Your task to perform on an android device: Open Wikipedia Image 0: 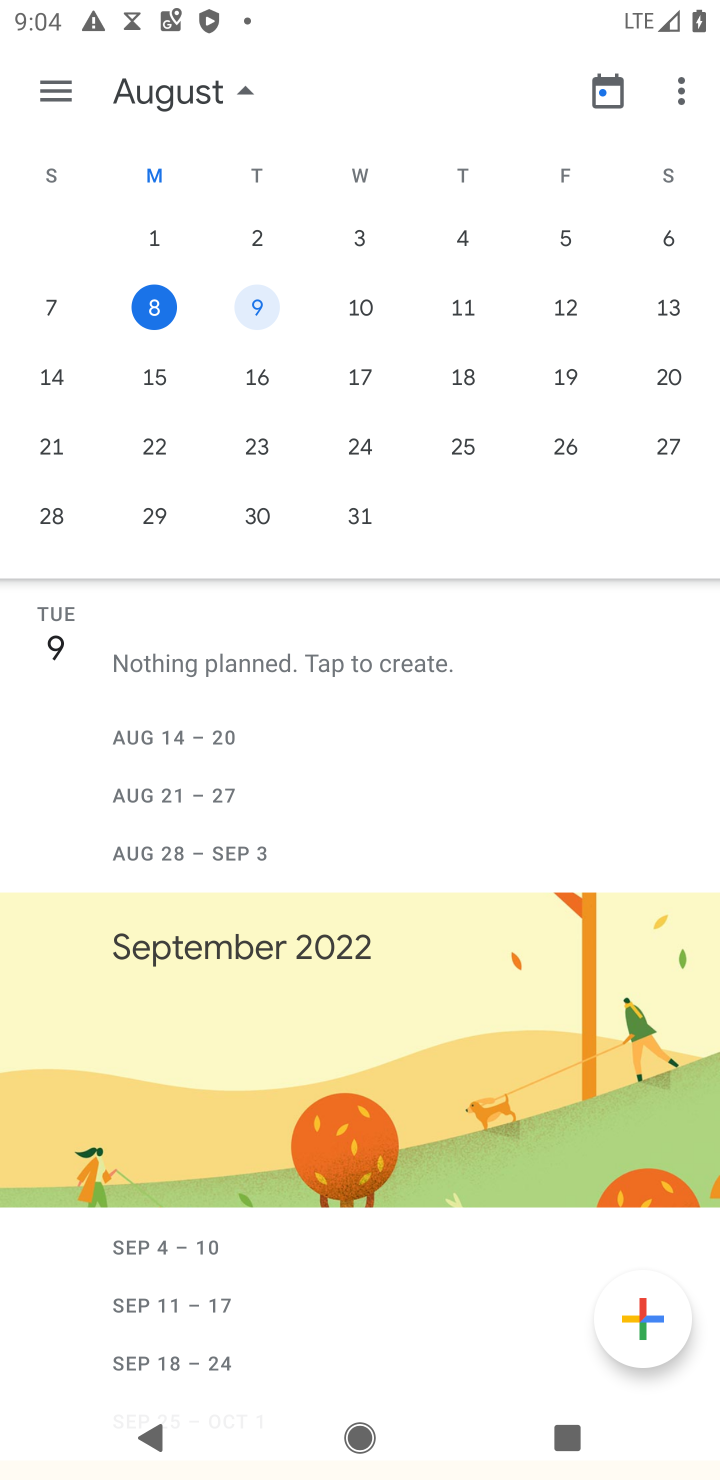
Step 0: press back button
Your task to perform on an android device: Open Wikipedia Image 1: 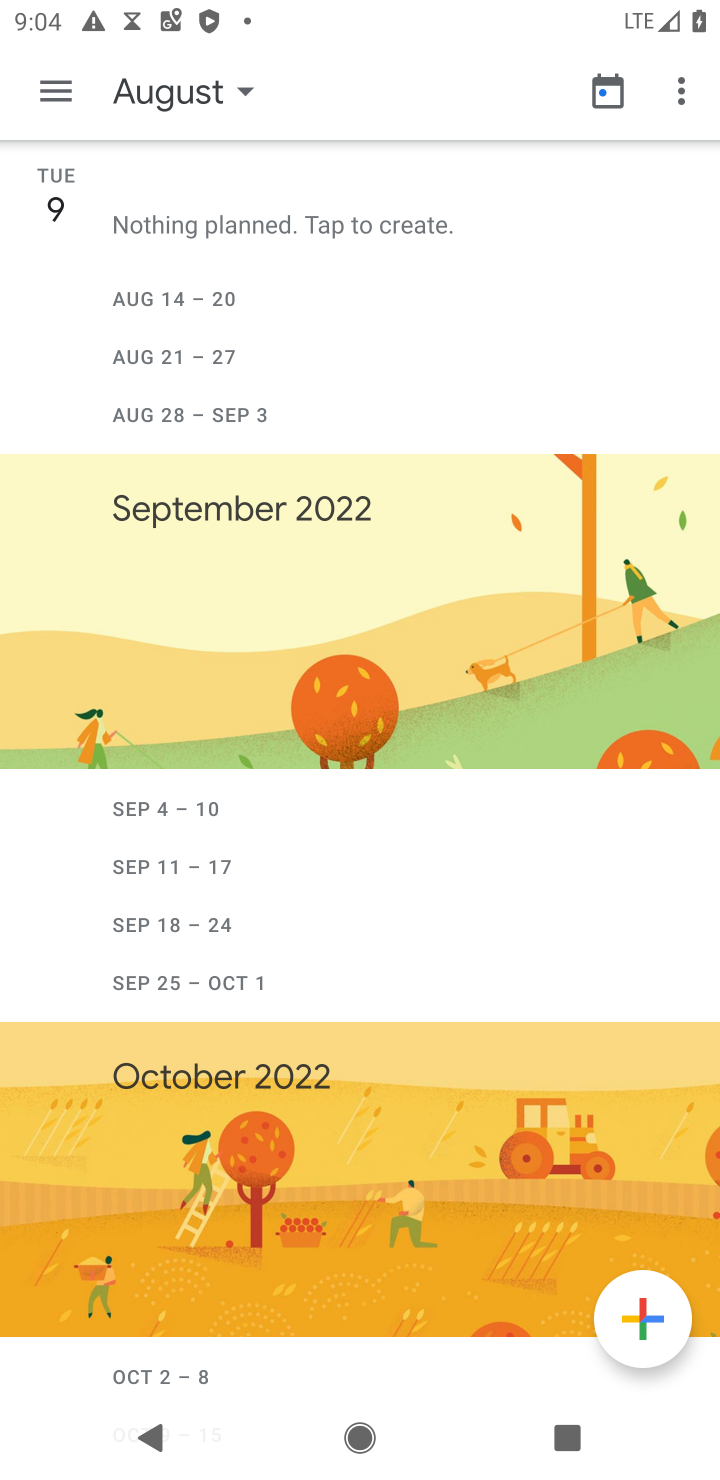
Step 1: press back button
Your task to perform on an android device: Open Wikipedia Image 2: 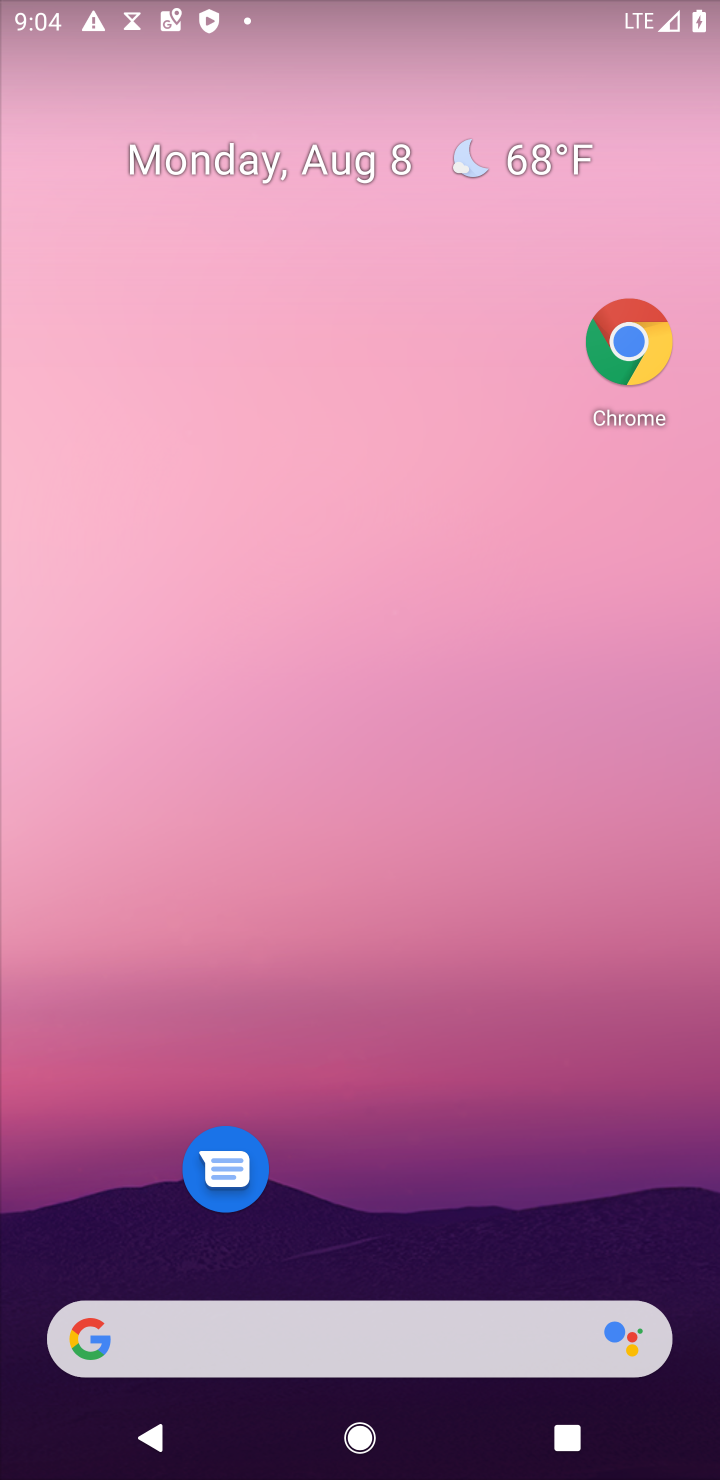
Step 2: click (627, 342)
Your task to perform on an android device: Open Wikipedia Image 3: 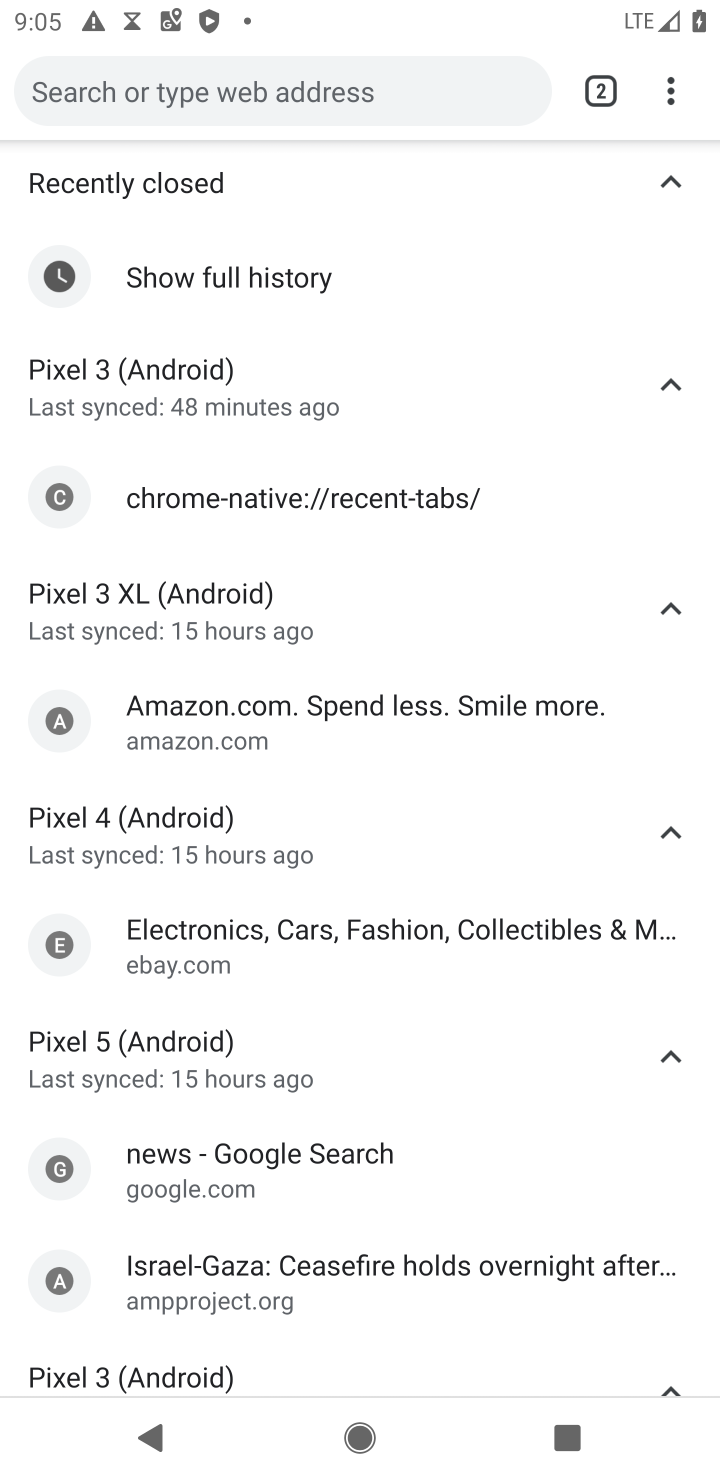
Step 3: click (600, 87)
Your task to perform on an android device: Open Wikipedia Image 4: 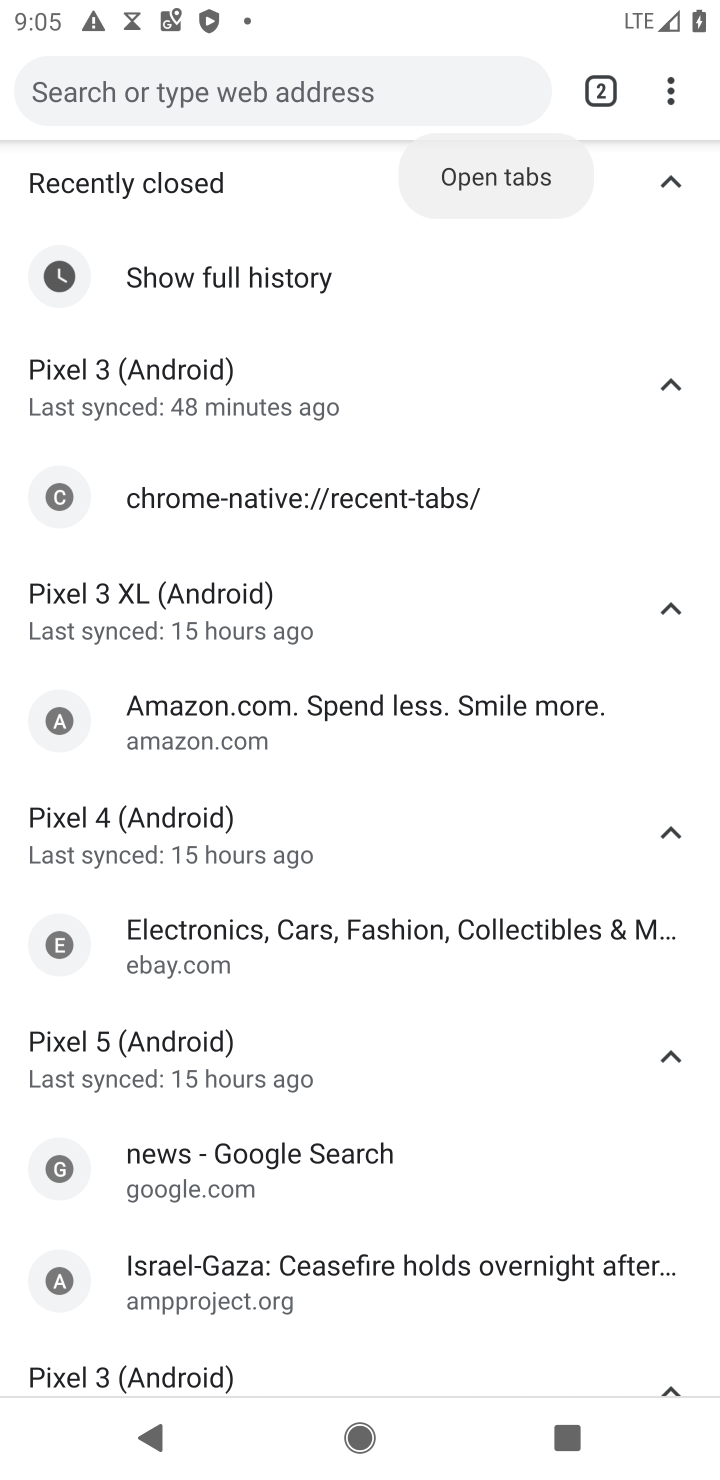
Step 4: click (594, 83)
Your task to perform on an android device: Open Wikipedia Image 5: 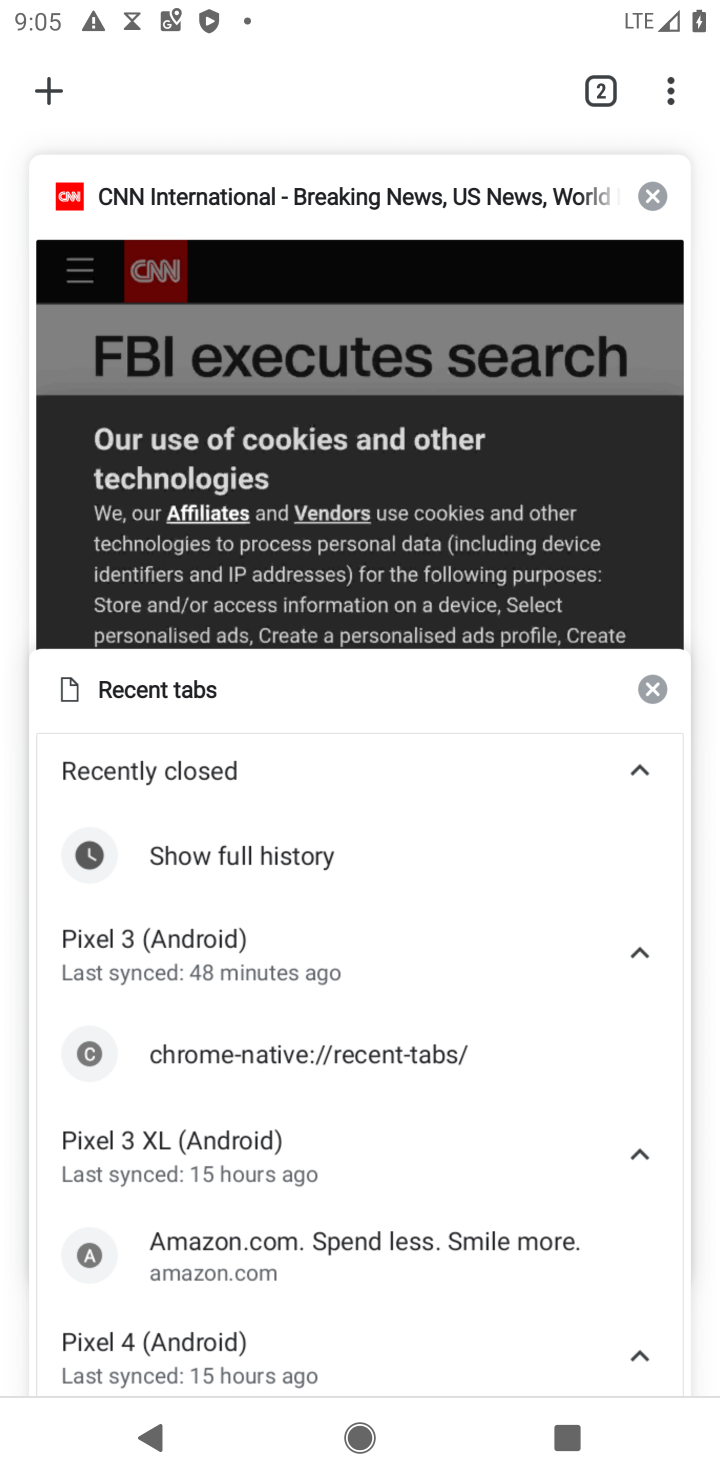
Step 5: click (51, 74)
Your task to perform on an android device: Open Wikipedia Image 6: 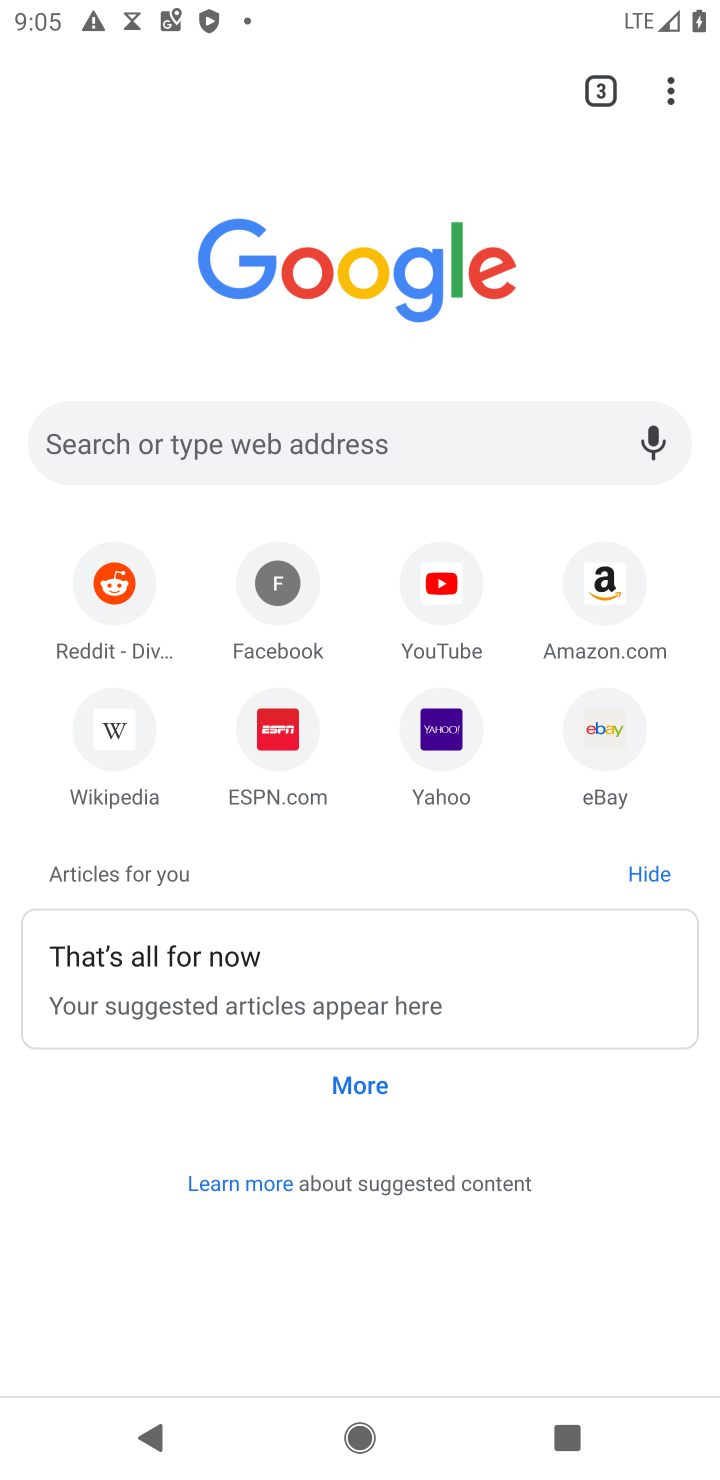
Step 6: click (130, 740)
Your task to perform on an android device: Open Wikipedia Image 7: 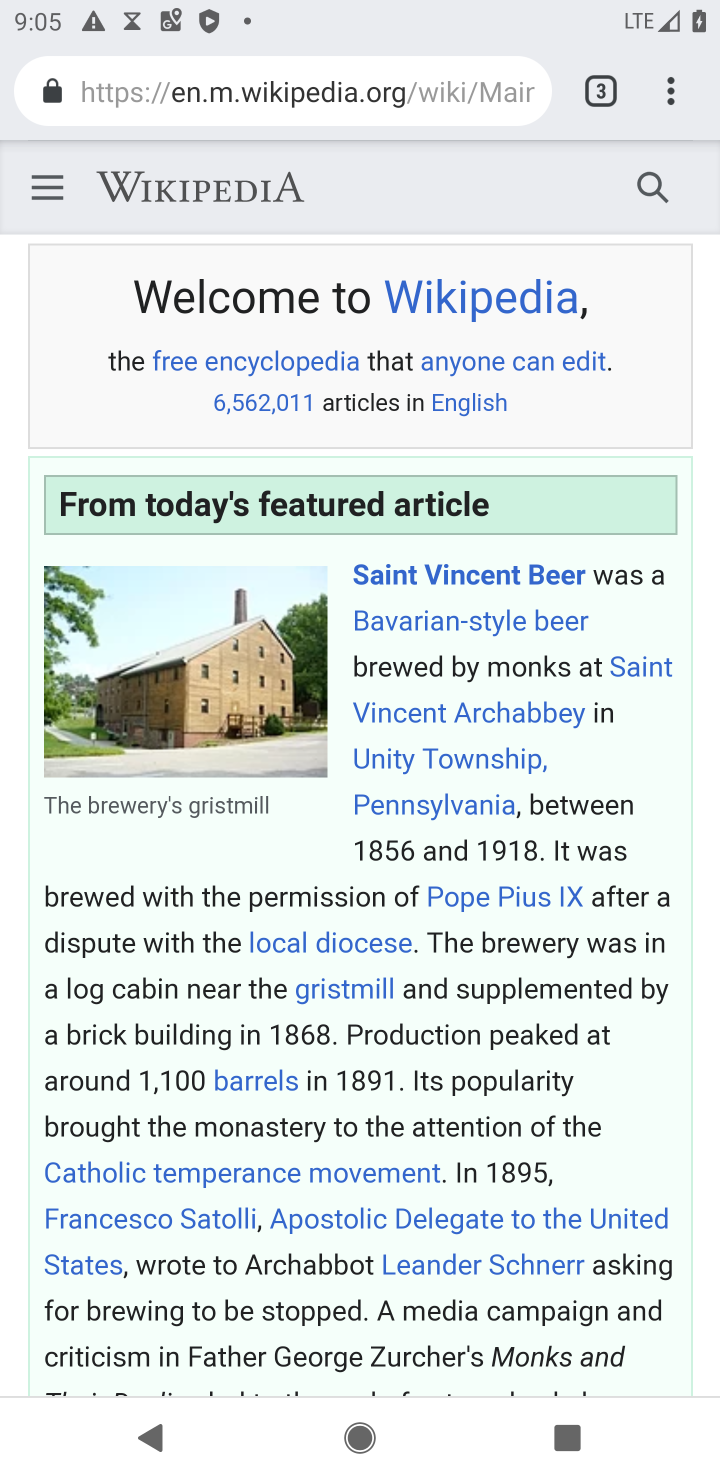
Step 7: task complete